Your task to perform on an android device: Go to eBay Image 0: 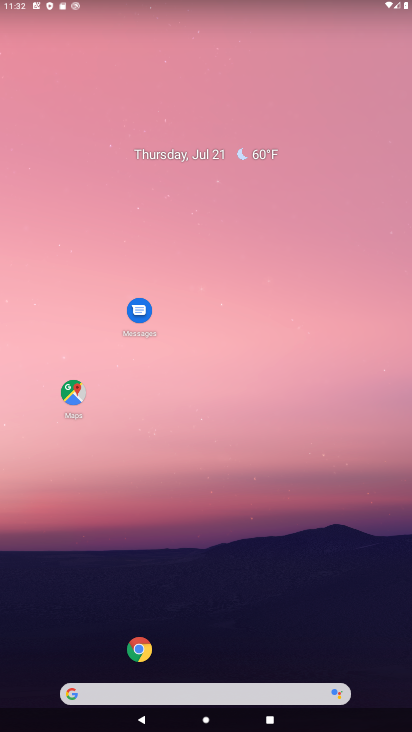
Step 0: click (96, 690)
Your task to perform on an android device: Go to eBay Image 1: 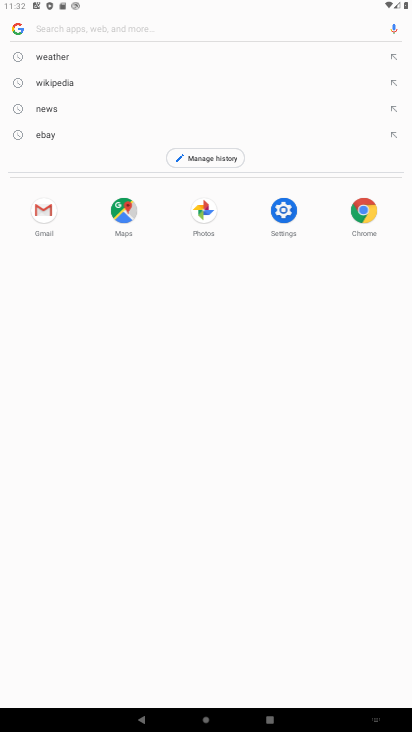
Step 1: click (59, 26)
Your task to perform on an android device: Go to eBay Image 2: 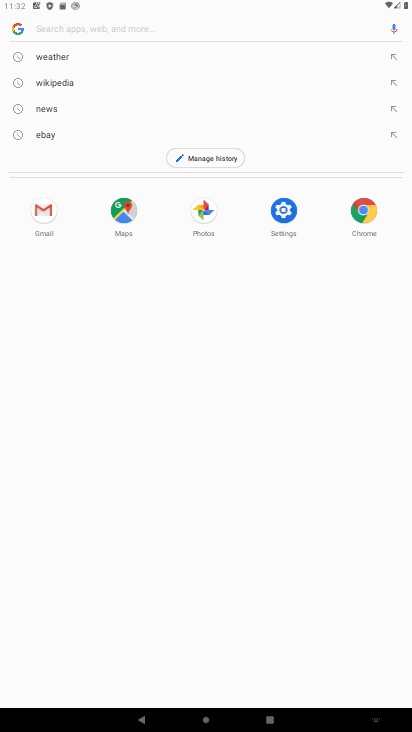
Step 2: click (48, 131)
Your task to perform on an android device: Go to eBay Image 3: 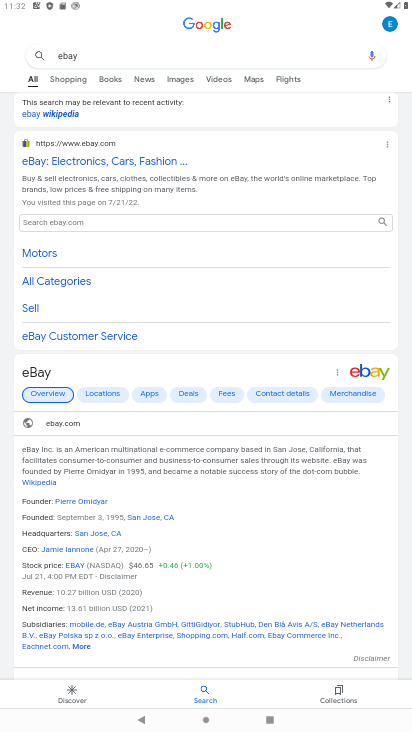
Step 3: task complete